Your task to perform on an android device: check battery use Image 0: 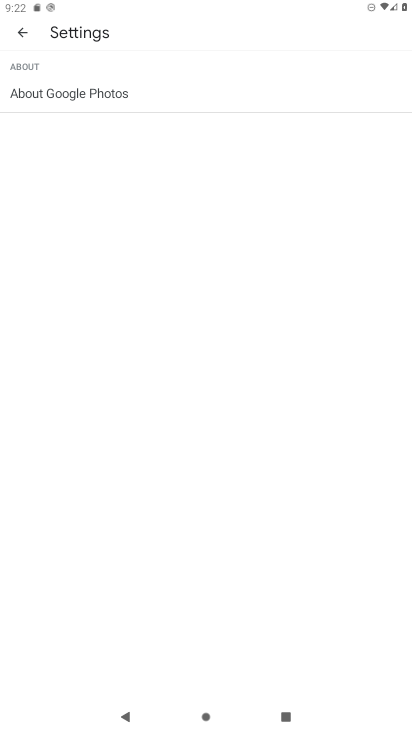
Step 0: press home button
Your task to perform on an android device: check battery use Image 1: 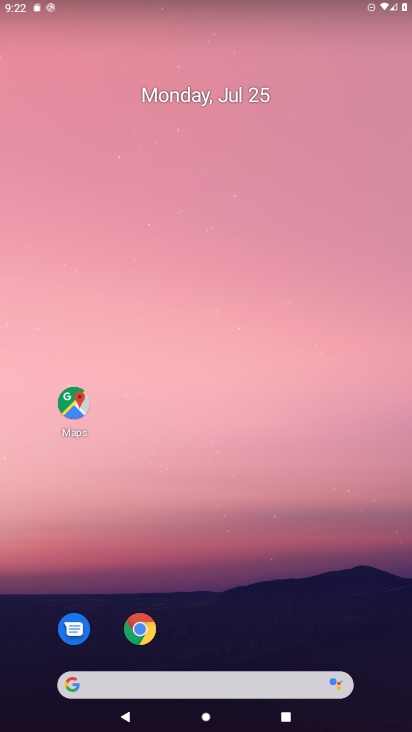
Step 1: drag from (230, 630) to (239, 5)
Your task to perform on an android device: check battery use Image 2: 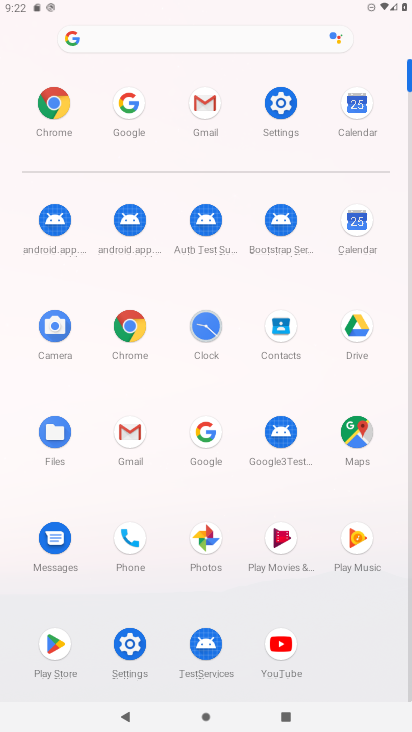
Step 2: click (277, 134)
Your task to perform on an android device: check battery use Image 3: 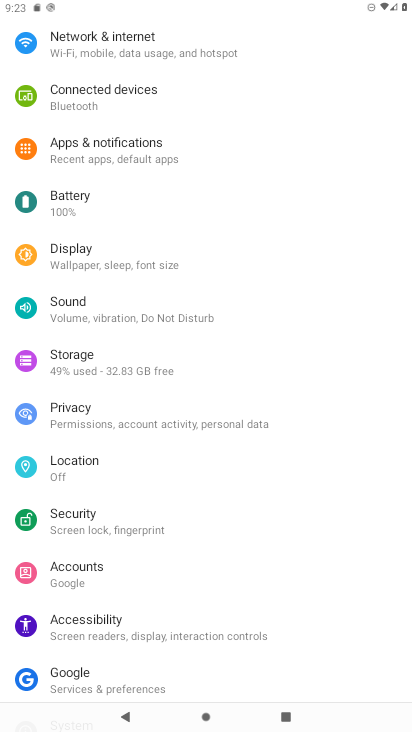
Step 3: click (66, 216)
Your task to perform on an android device: check battery use Image 4: 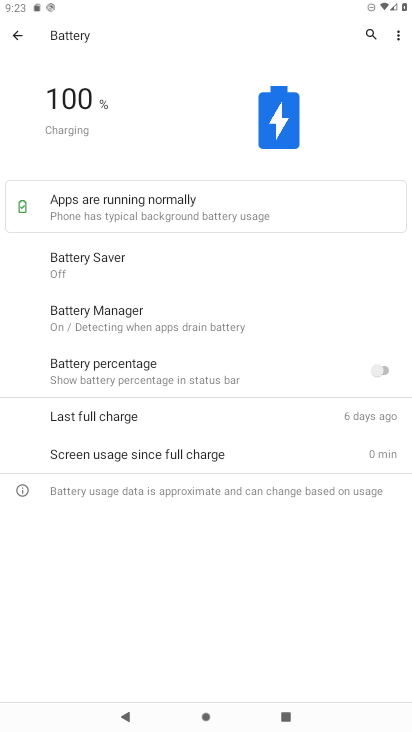
Step 4: click (400, 33)
Your task to perform on an android device: check battery use Image 5: 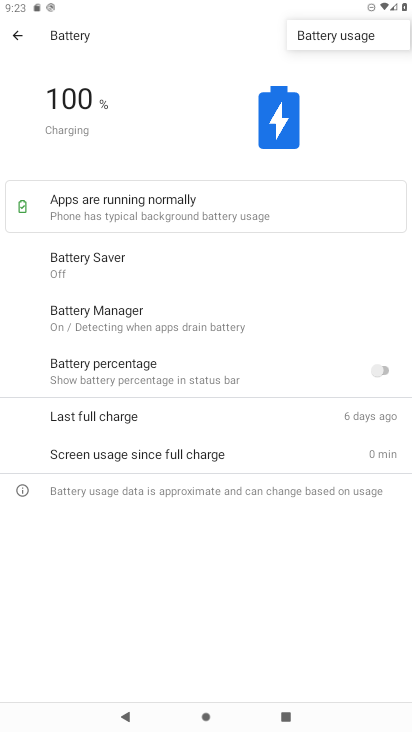
Step 5: click (357, 36)
Your task to perform on an android device: check battery use Image 6: 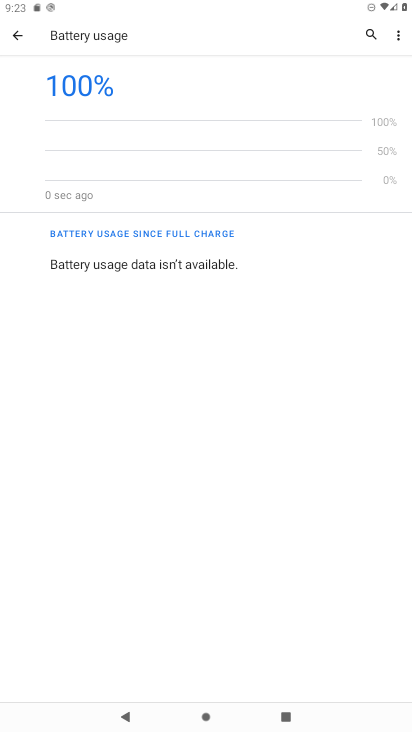
Step 6: task complete